Your task to perform on an android device: turn on translation in the chrome app Image 0: 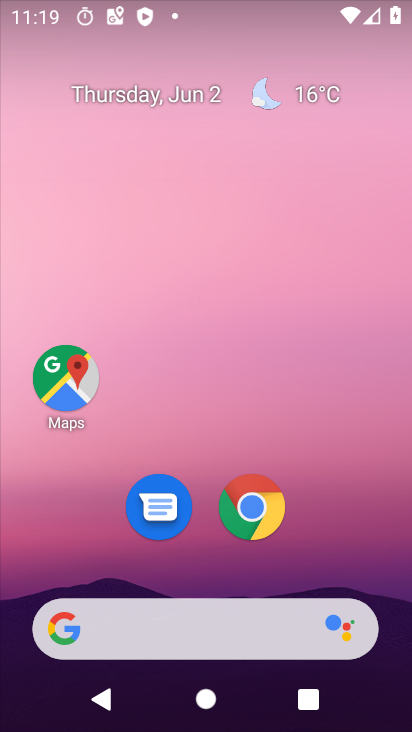
Step 0: click (403, 621)
Your task to perform on an android device: turn on translation in the chrome app Image 1: 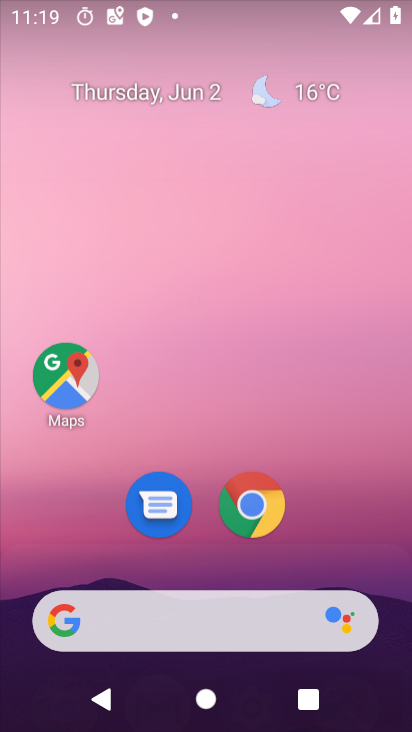
Step 1: drag from (378, 275) to (315, 28)
Your task to perform on an android device: turn on translation in the chrome app Image 2: 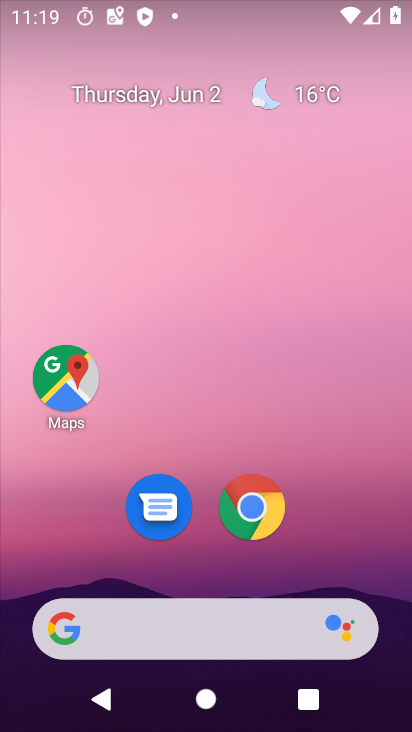
Step 2: drag from (397, 638) to (355, 23)
Your task to perform on an android device: turn on translation in the chrome app Image 3: 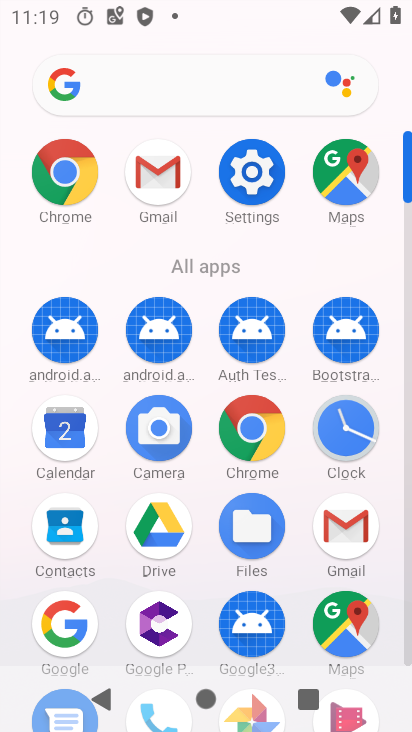
Step 3: click (264, 437)
Your task to perform on an android device: turn on translation in the chrome app Image 4: 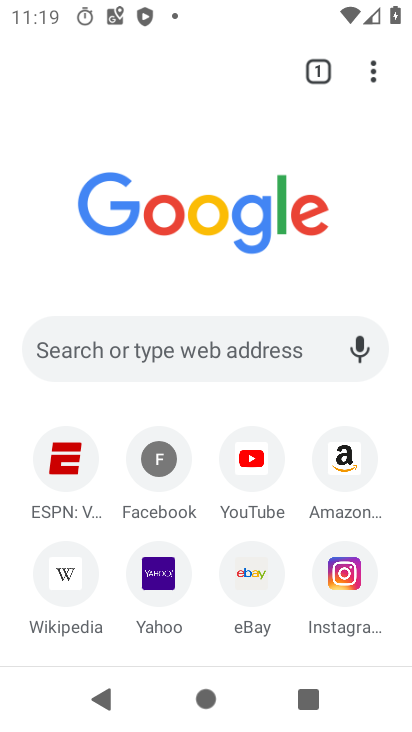
Step 4: click (372, 69)
Your task to perform on an android device: turn on translation in the chrome app Image 5: 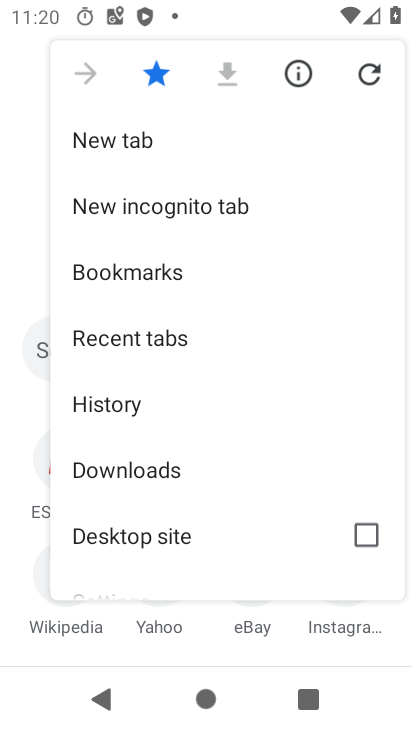
Step 5: drag from (247, 341) to (251, 169)
Your task to perform on an android device: turn on translation in the chrome app Image 6: 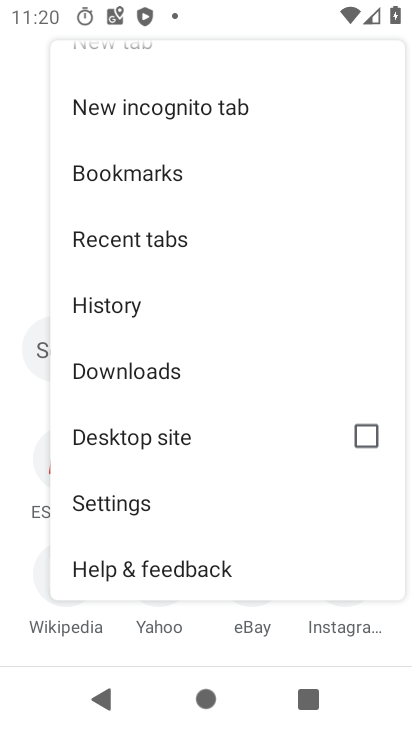
Step 6: click (156, 520)
Your task to perform on an android device: turn on translation in the chrome app Image 7: 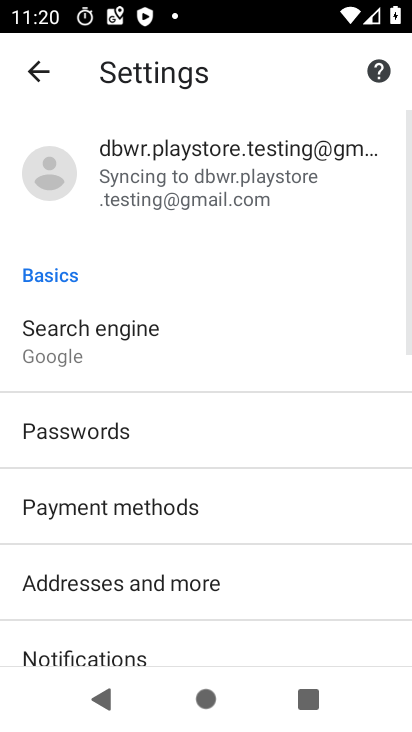
Step 7: drag from (163, 614) to (188, 181)
Your task to perform on an android device: turn on translation in the chrome app Image 8: 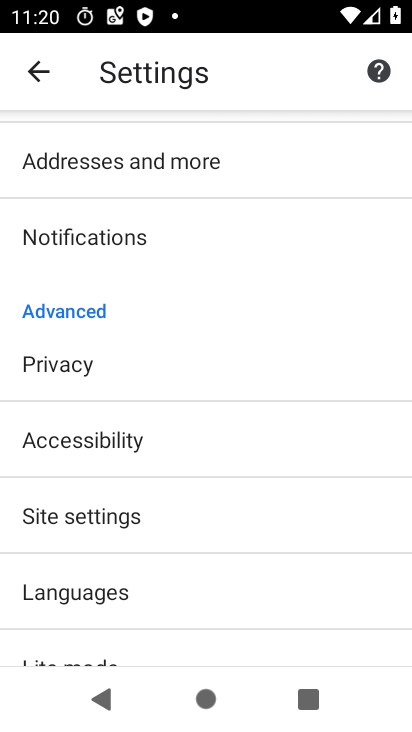
Step 8: click (180, 583)
Your task to perform on an android device: turn on translation in the chrome app Image 9: 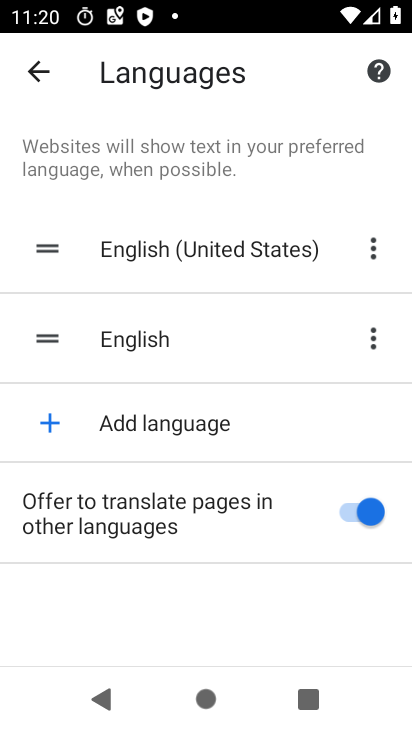
Step 9: task complete